Your task to perform on an android device: install app "Cash App" Image 0: 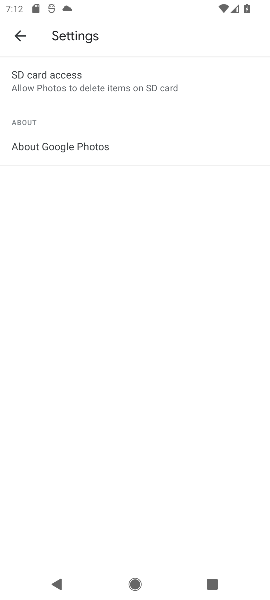
Step 0: press home button
Your task to perform on an android device: install app "Cash App" Image 1: 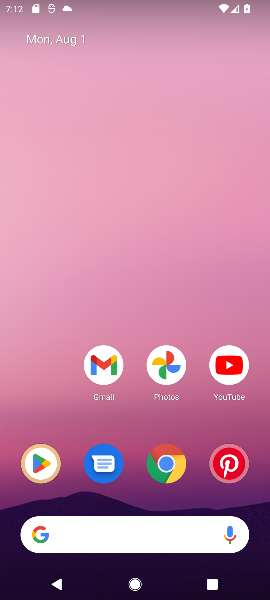
Step 1: click (33, 460)
Your task to perform on an android device: install app "Cash App" Image 2: 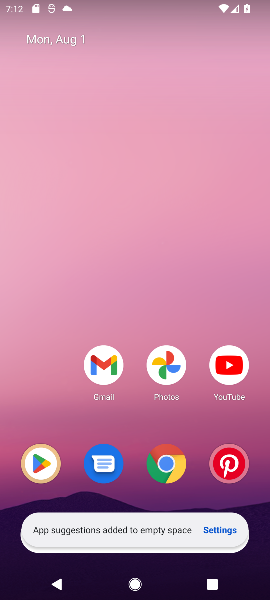
Step 2: click (33, 460)
Your task to perform on an android device: install app "Cash App" Image 3: 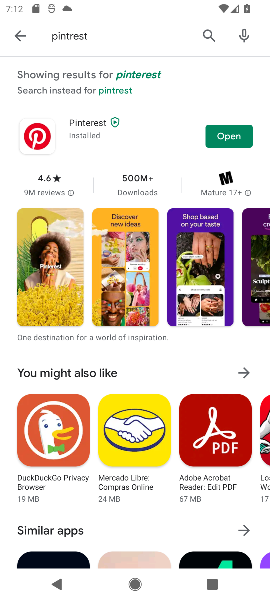
Step 3: click (208, 25)
Your task to perform on an android device: install app "Cash App" Image 4: 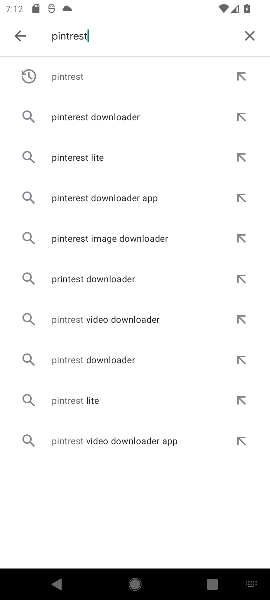
Step 4: click (244, 38)
Your task to perform on an android device: install app "Cash App" Image 5: 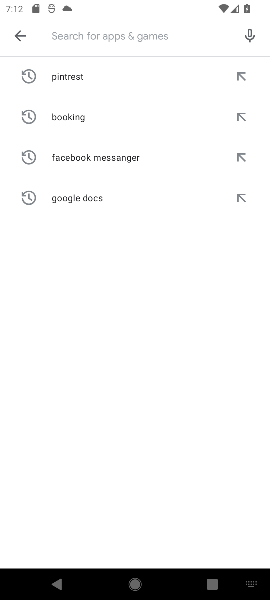
Step 5: type "cash app"
Your task to perform on an android device: install app "Cash App" Image 6: 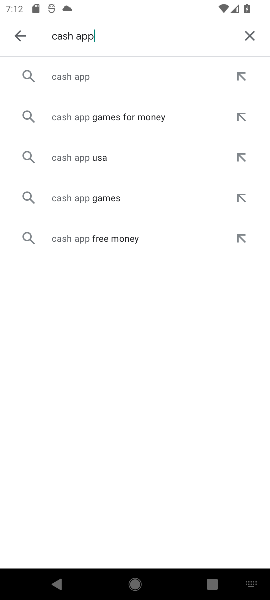
Step 6: click (117, 84)
Your task to perform on an android device: install app "Cash App" Image 7: 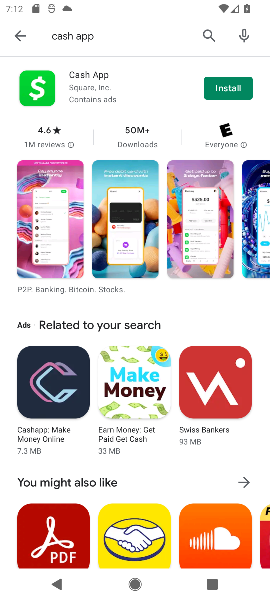
Step 7: click (222, 95)
Your task to perform on an android device: install app "Cash App" Image 8: 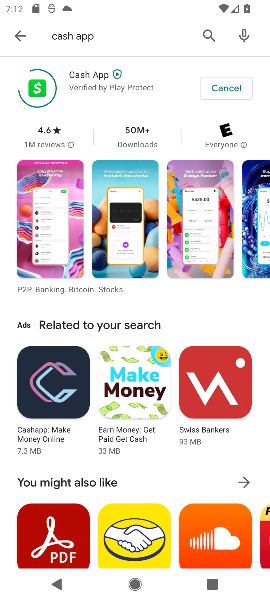
Step 8: task complete